Your task to perform on an android device: check storage Image 0: 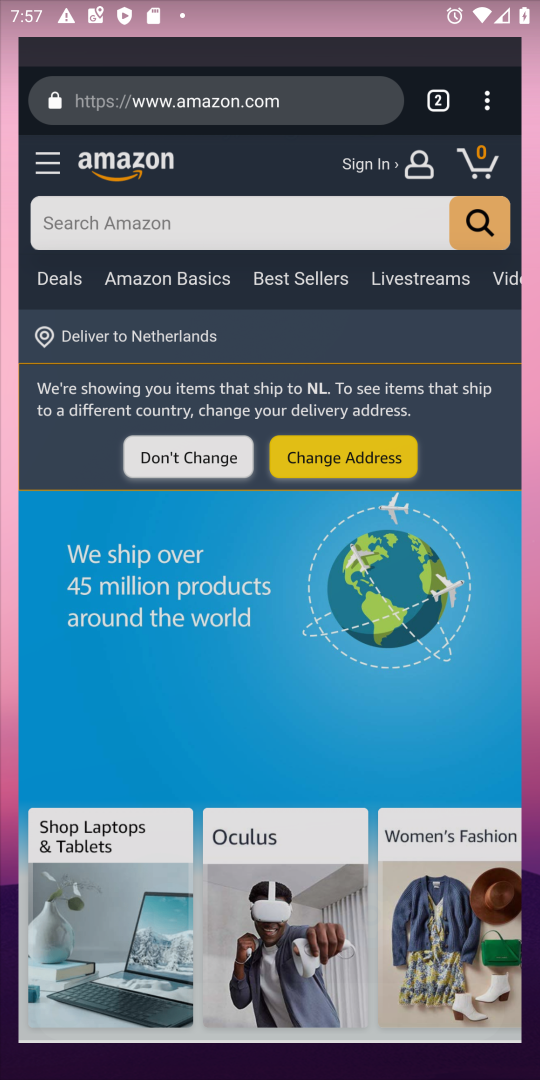
Step 0: press home button
Your task to perform on an android device: check storage Image 1: 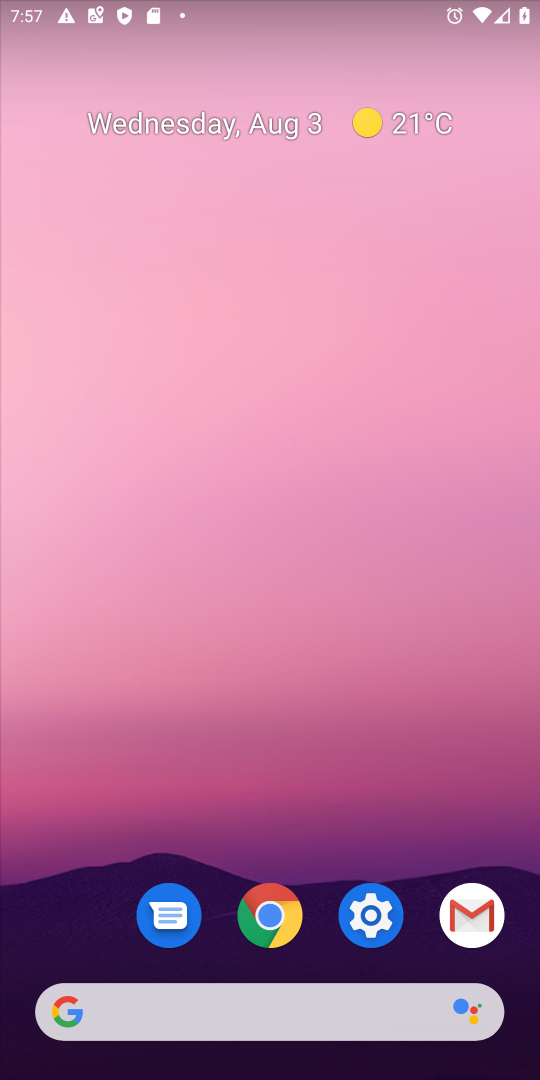
Step 1: drag from (401, 753) to (275, 241)
Your task to perform on an android device: check storage Image 2: 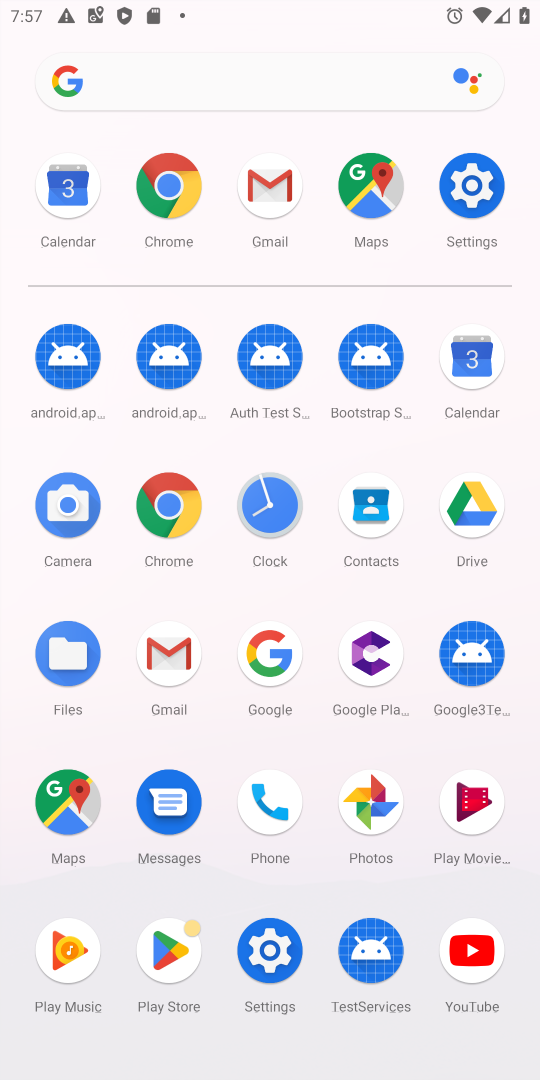
Step 2: click (456, 182)
Your task to perform on an android device: check storage Image 3: 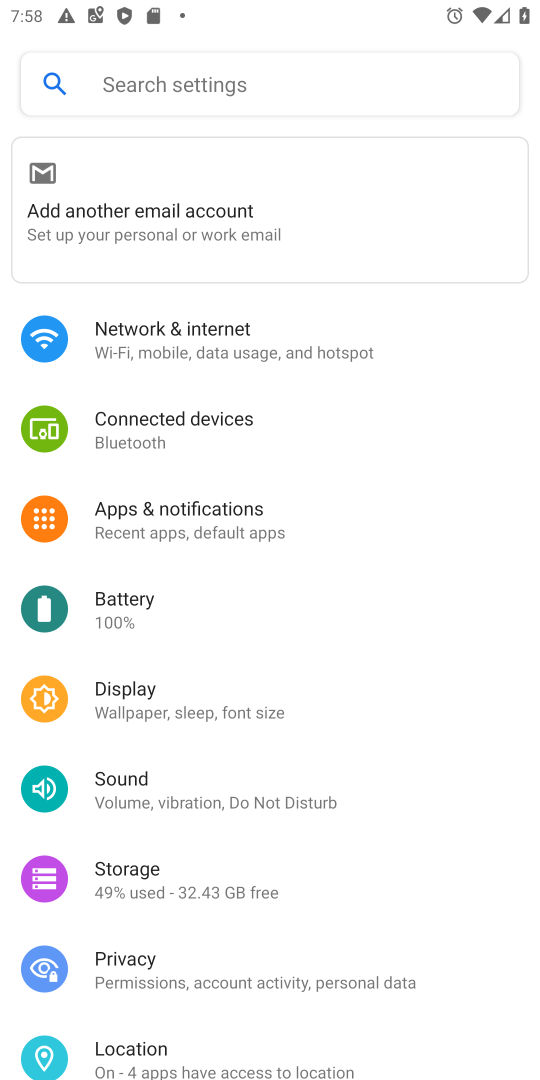
Step 3: click (157, 96)
Your task to perform on an android device: check storage Image 4: 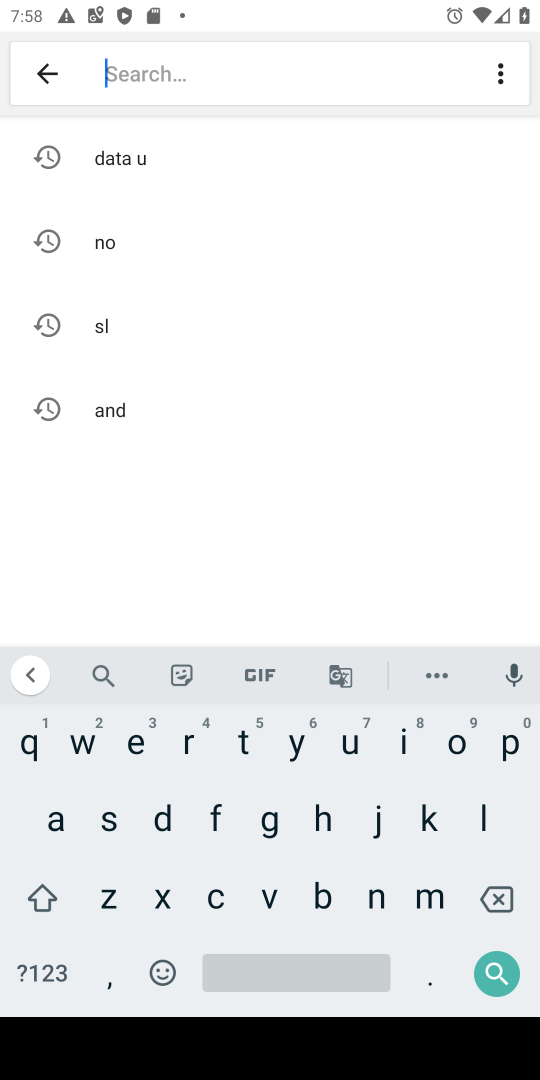
Step 4: click (111, 816)
Your task to perform on an android device: check storage Image 5: 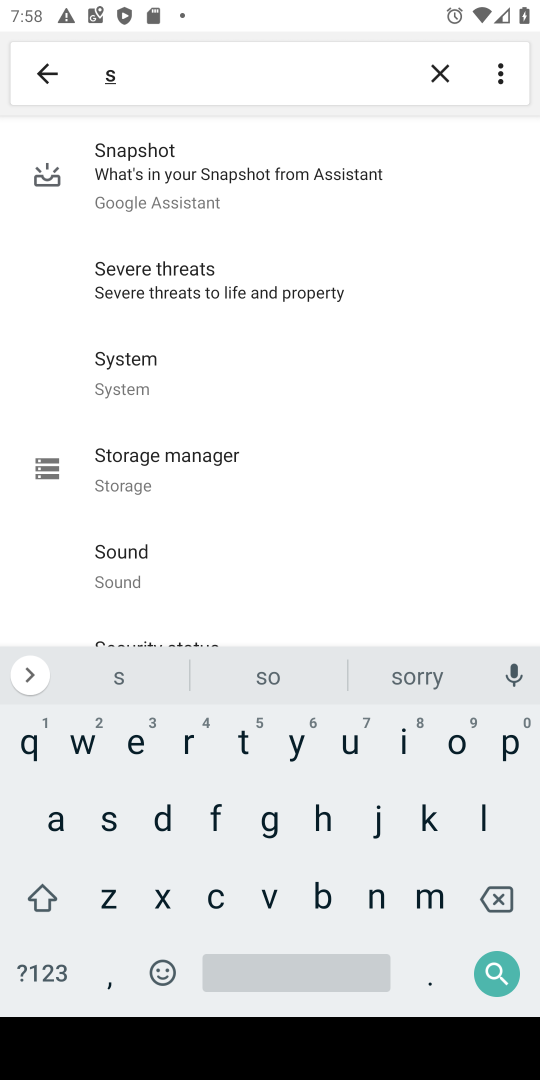
Step 5: click (243, 743)
Your task to perform on an android device: check storage Image 6: 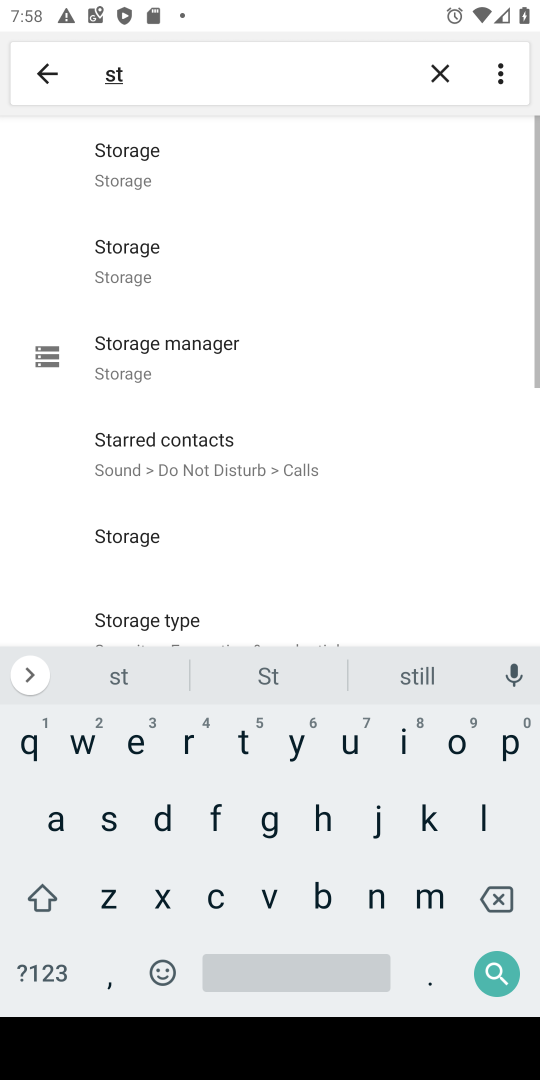
Step 6: click (186, 164)
Your task to perform on an android device: check storage Image 7: 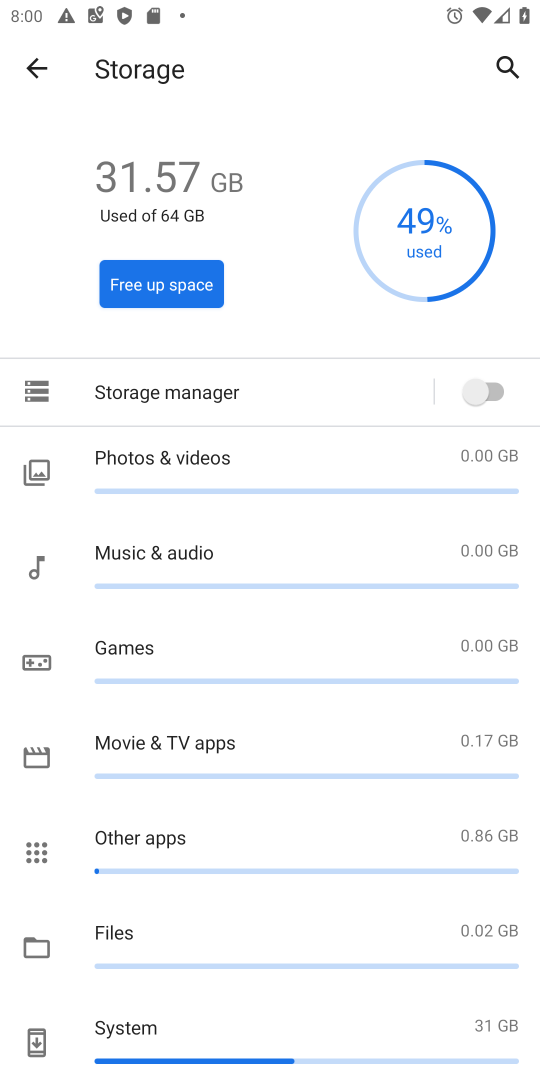
Step 7: task complete